Your task to perform on an android device: When is my next meeting? Image 0: 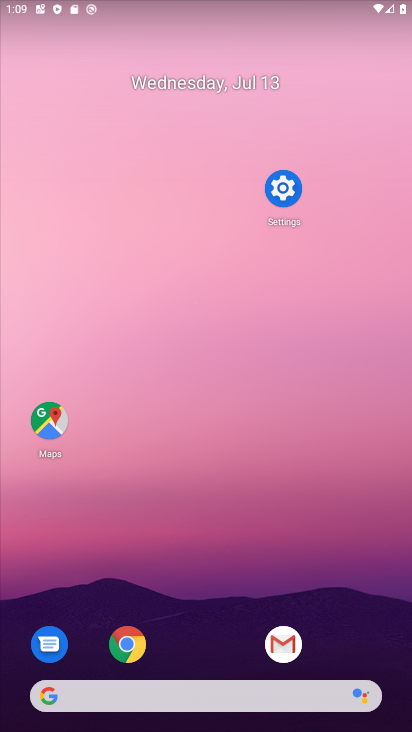
Step 0: drag from (287, 450) to (251, 217)
Your task to perform on an android device: When is my next meeting? Image 1: 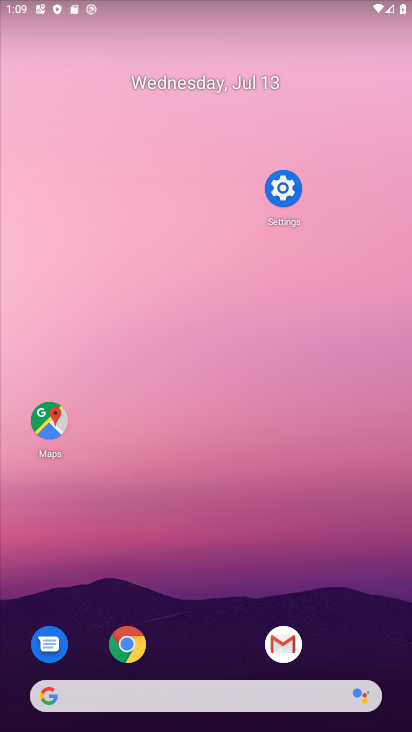
Step 1: drag from (181, 656) to (144, 299)
Your task to perform on an android device: When is my next meeting? Image 2: 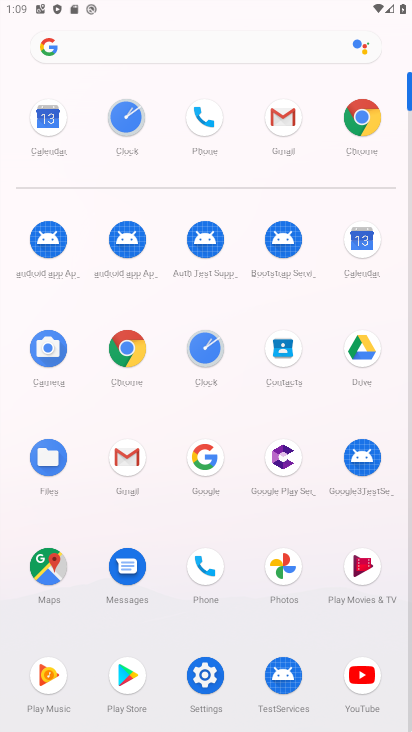
Step 2: click (350, 243)
Your task to perform on an android device: When is my next meeting? Image 3: 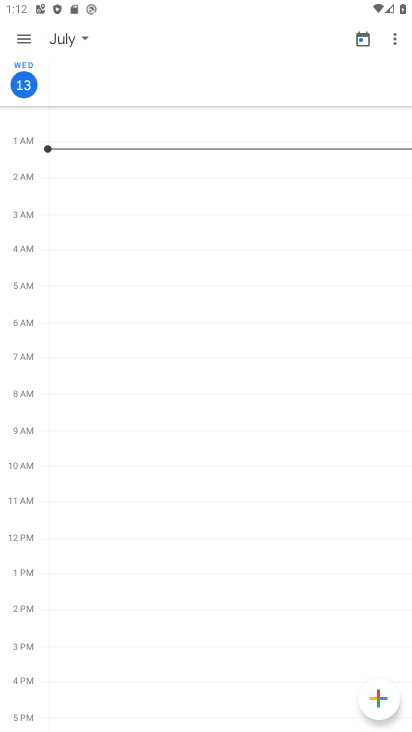
Step 3: task complete